Your task to perform on an android device: add a contact Image 0: 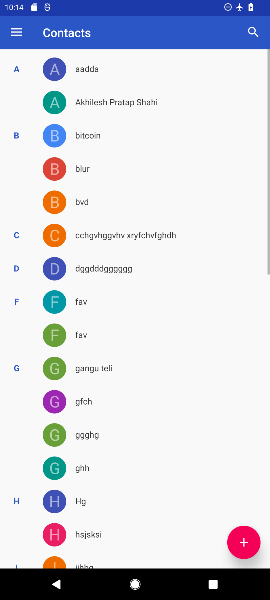
Step 0: press home button
Your task to perform on an android device: add a contact Image 1: 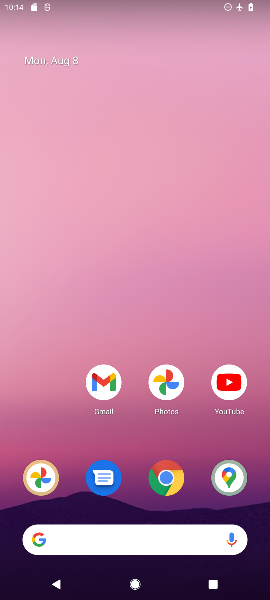
Step 1: drag from (163, 515) to (173, 46)
Your task to perform on an android device: add a contact Image 2: 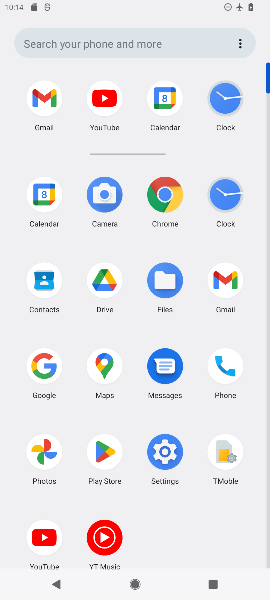
Step 2: click (209, 370)
Your task to perform on an android device: add a contact Image 3: 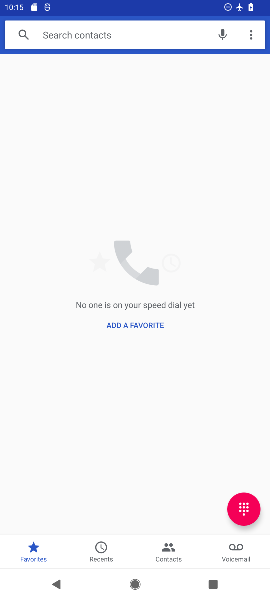
Step 3: click (189, 546)
Your task to perform on an android device: add a contact Image 4: 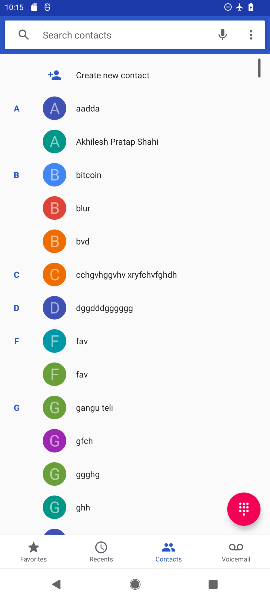
Step 4: click (114, 49)
Your task to perform on an android device: add a contact Image 5: 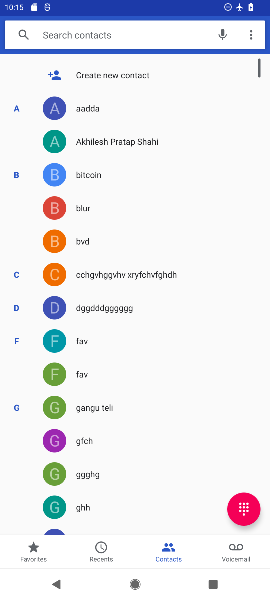
Step 5: click (114, 62)
Your task to perform on an android device: add a contact Image 6: 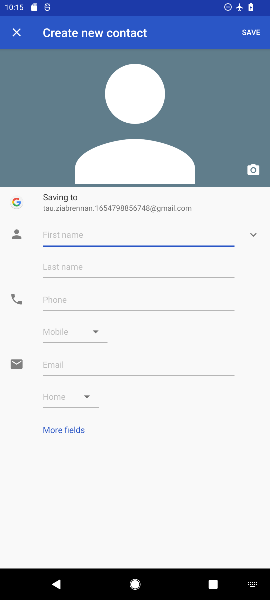
Step 6: type "Episode"
Your task to perform on an android device: add a contact Image 7: 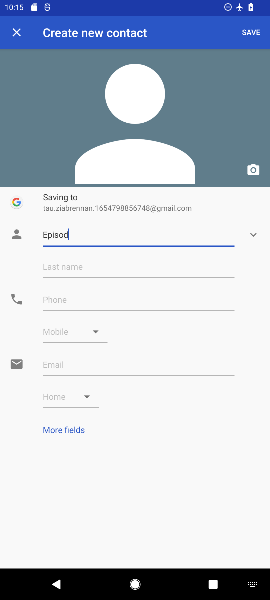
Step 7: type ""
Your task to perform on an android device: add a contact Image 8: 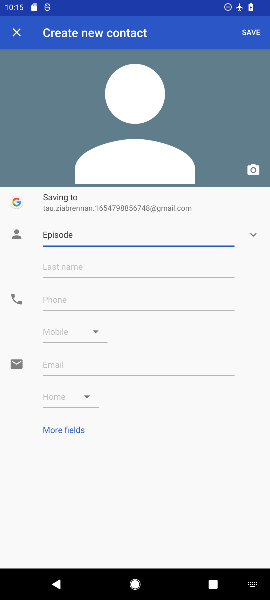
Step 8: click (242, 30)
Your task to perform on an android device: add a contact Image 9: 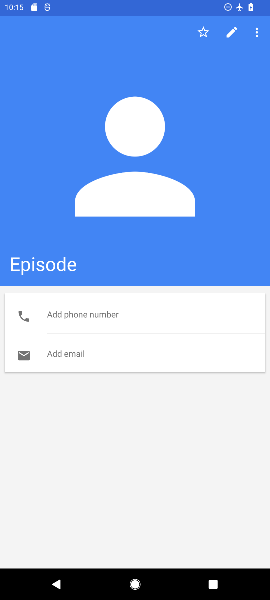
Step 9: task complete